Your task to perform on an android device: What is the news today? Image 0: 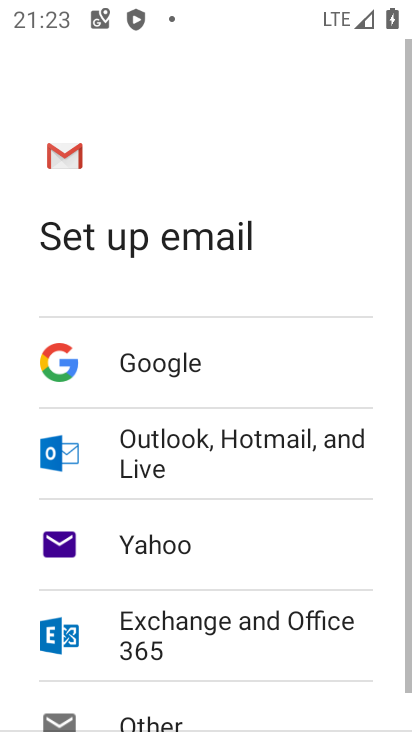
Step 0: press home button
Your task to perform on an android device: What is the news today? Image 1: 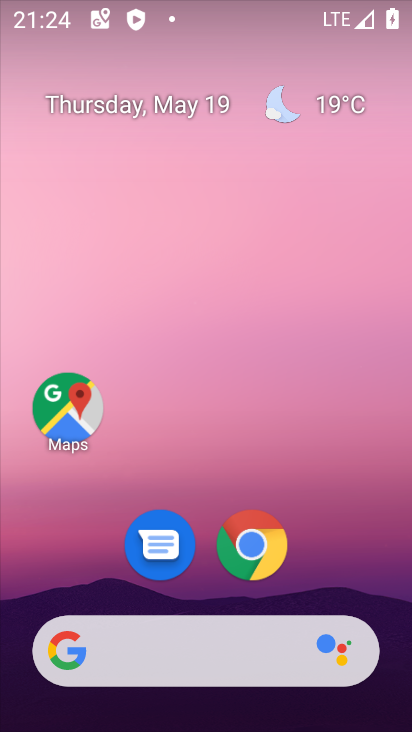
Step 1: drag from (367, 552) to (314, 138)
Your task to perform on an android device: What is the news today? Image 2: 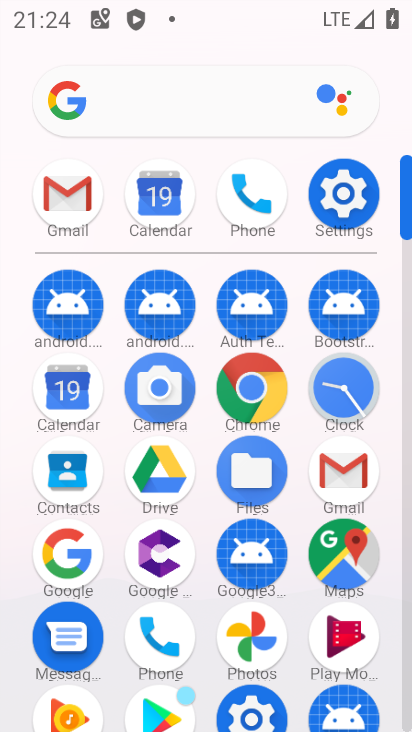
Step 2: click (173, 91)
Your task to perform on an android device: What is the news today? Image 3: 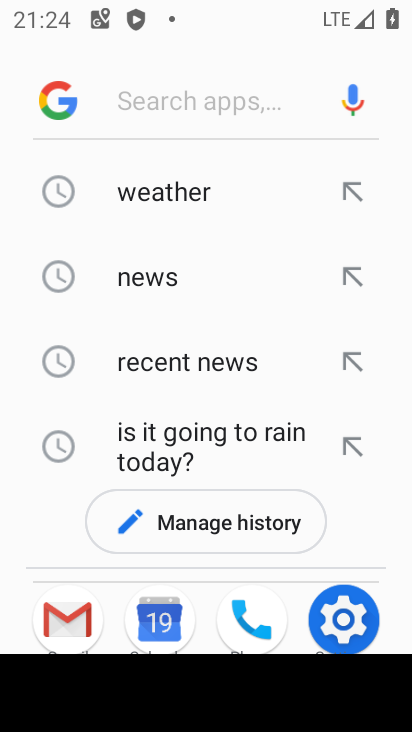
Step 3: click (159, 259)
Your task to perform on an android device: What is the news today? Image 4: 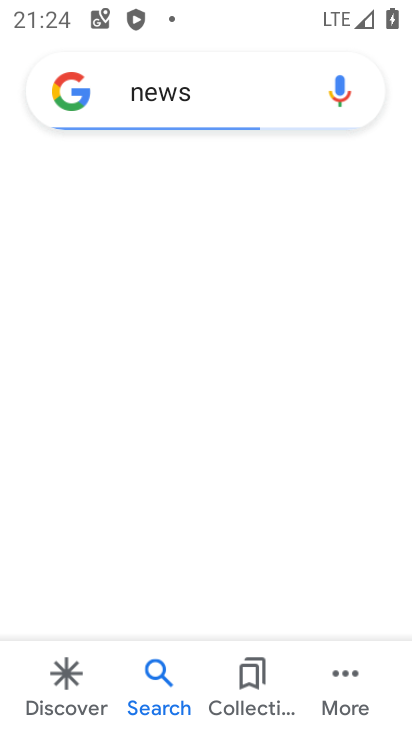
Step 4: task complete